Your task to perform on an android device: turn on javascript in the chrome app Image 0: 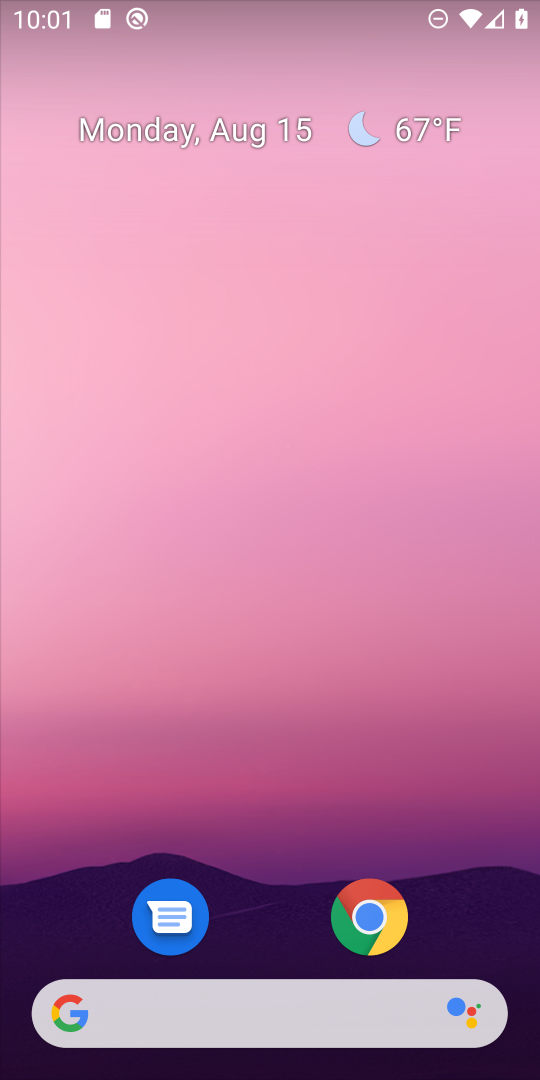
Step 0: click (378, 909)
Your task to perform on an android device: turn on javascript in the chrome app Image 1: 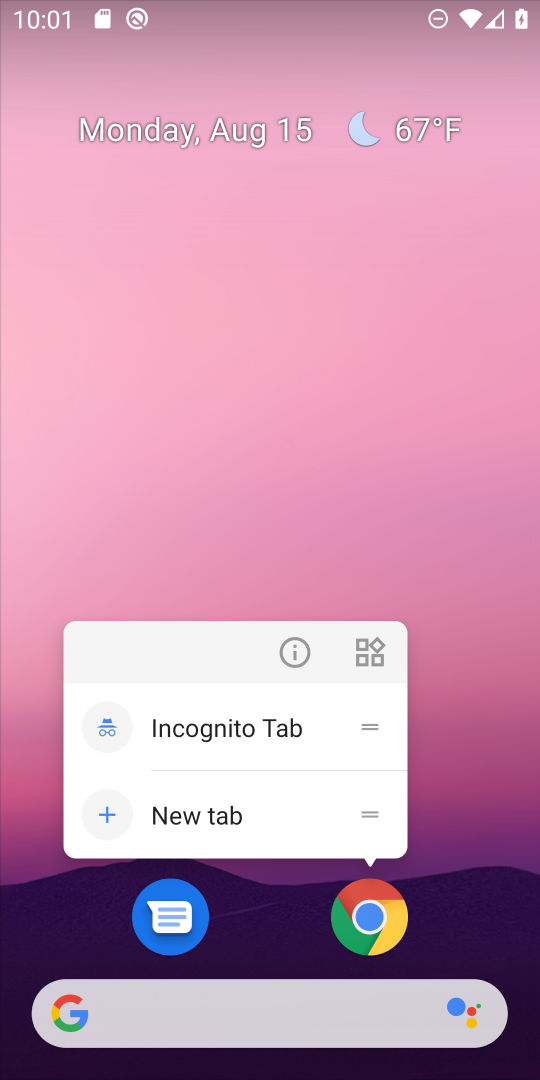
Step 1: click (380, 910)
Your task to perform on an android device: turn on javascript in the chrome app Image 2: 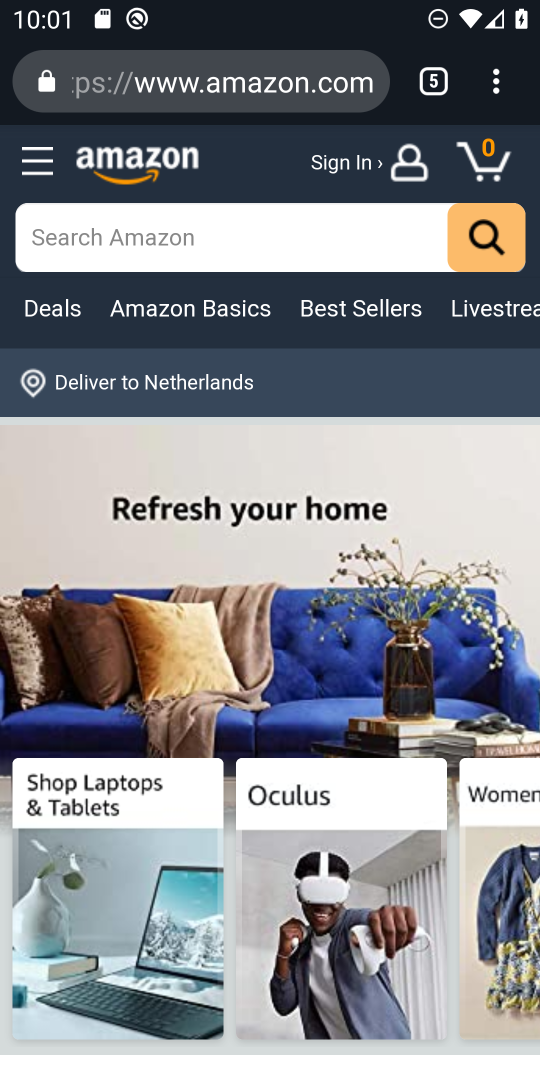
Step 2: click (491, 89)
Your task to perform on an android device: turn on javascript in the chrome app Image 3: 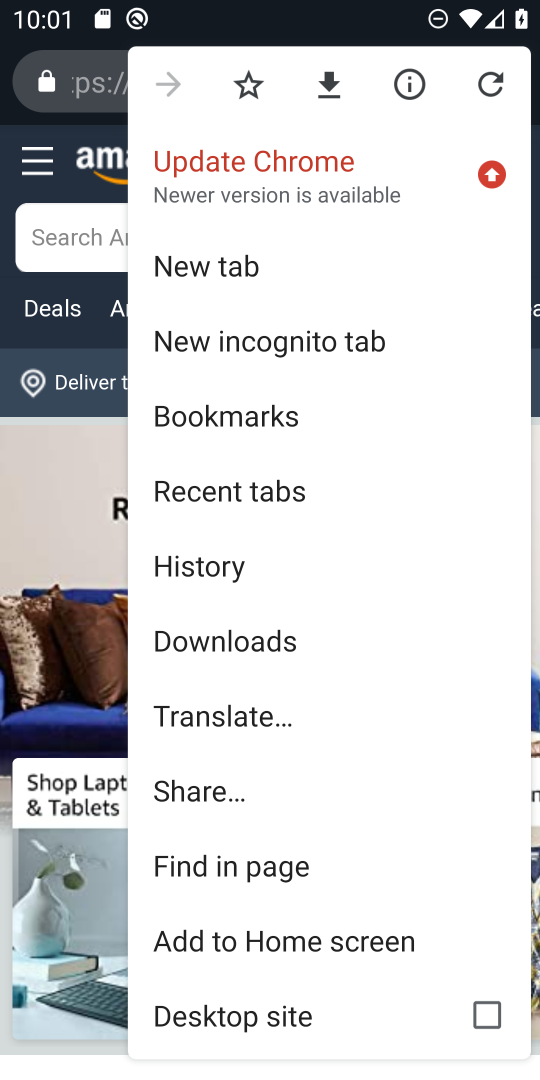
Step 3: drag from (344, 768) to (410, 276)
Your task to perform on an android device: turn on javascript in the chrome app Image 4: 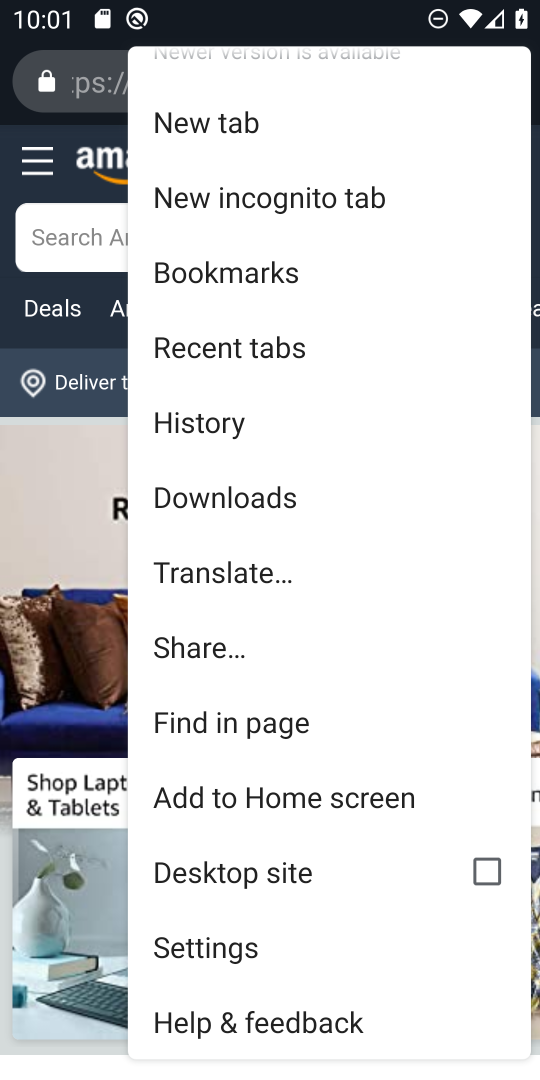
Step 4: click (226, 942)
Your task to perform on an android device: turn on javascript in the chrome app Image 5: 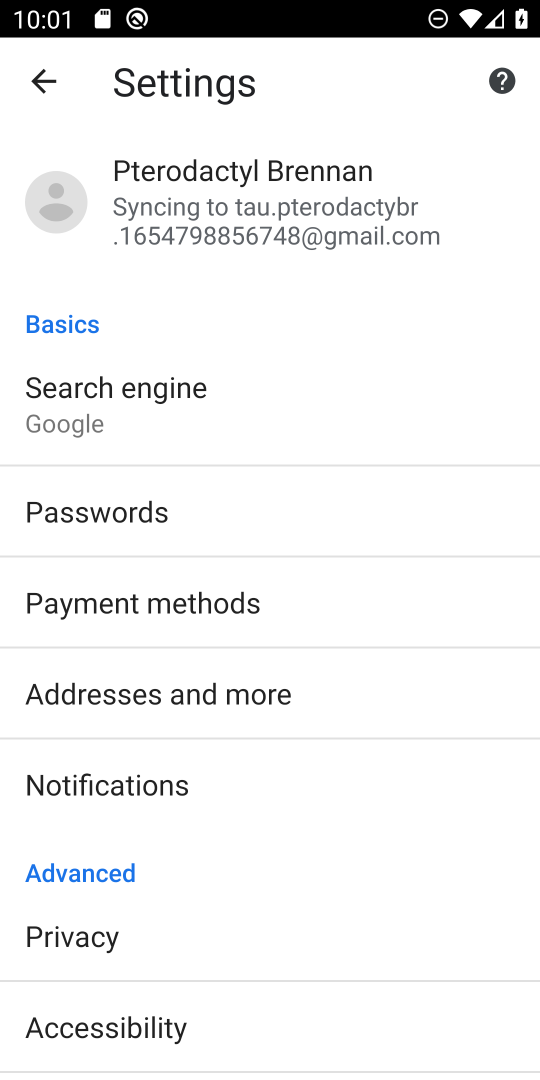
Step 5: drag from (290, 884) to (293, 339)
Your task to perform on an android device: turn on javascript in the chrome app Image 6: 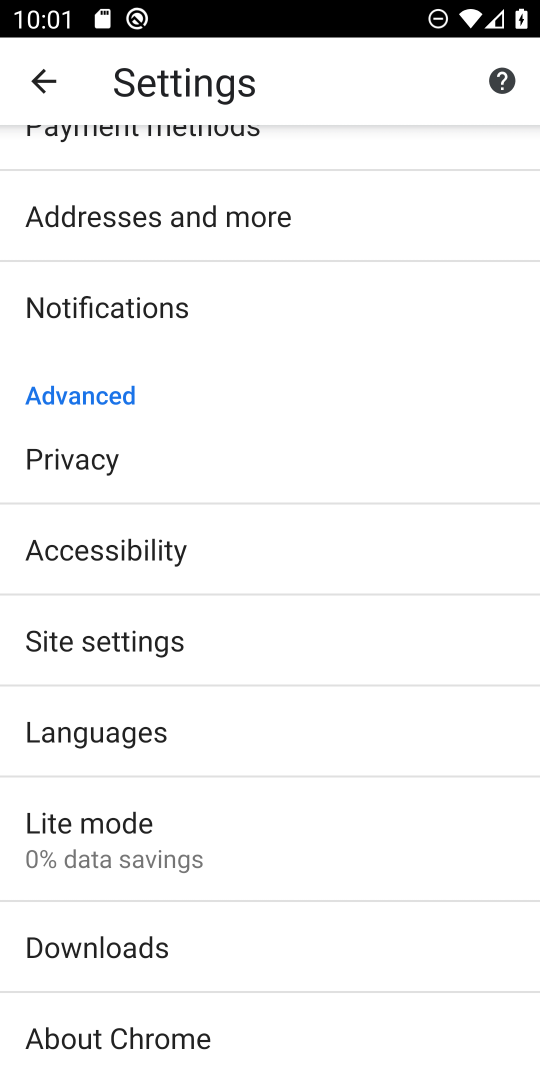
Step 6: click (162, 638)
Your task to perform on an android device: turn on javascript in the chrome app Image 7: 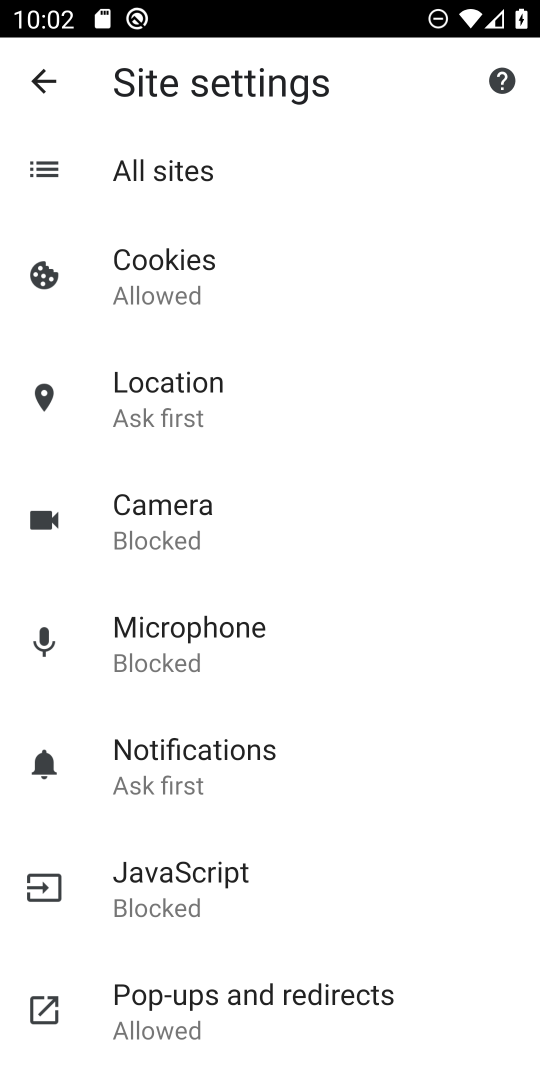
Step 7: click (242, 881)
Your task to perform on an android device: turn on javascript in the chrome app Image 8: 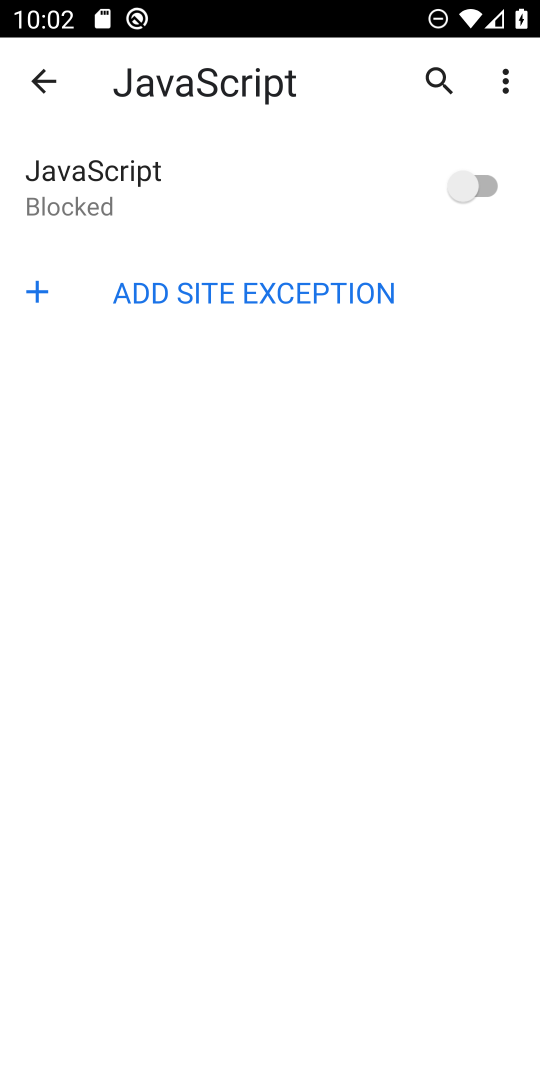
Step 8: click (487, 182)
Your task to perform on an android device: turn on javascript in the chrome app Image 9: 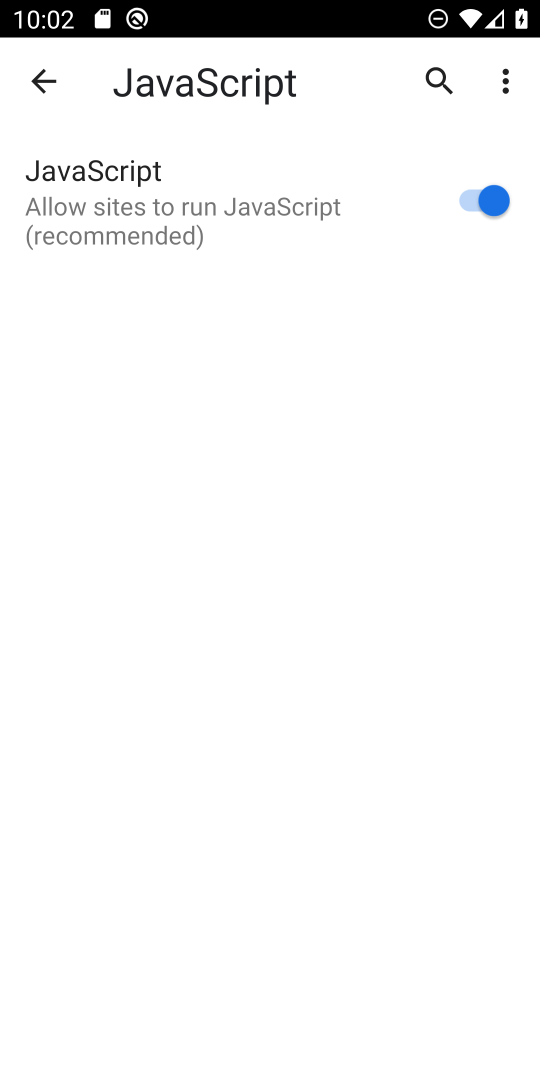
Step 9: task complete